Your task to perform on an android device: add a contact Image 0: 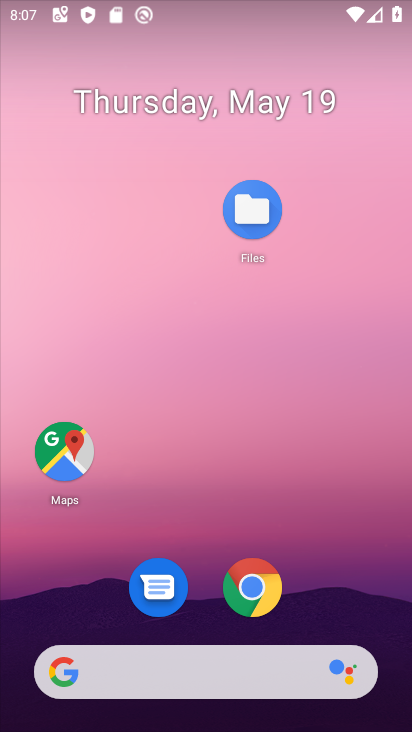
Step 0: drag from (305, 673) to (242, 152)
Your task to perform on an android device: add a contact Image 1: 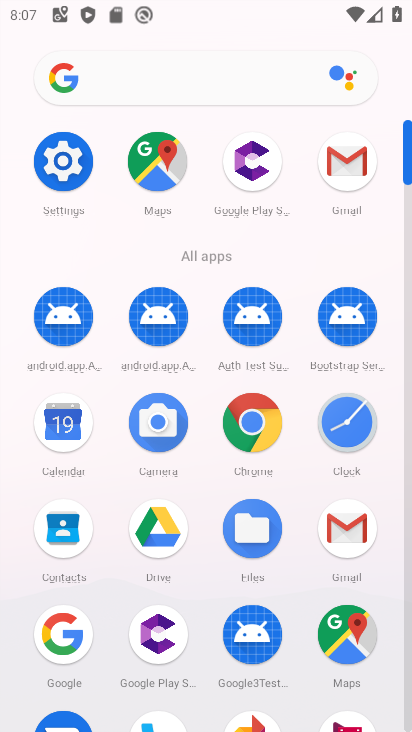
Step 1: drag from (223, 612) to (225, 159)
Your task to perform on an android device: add a contact Image 2: 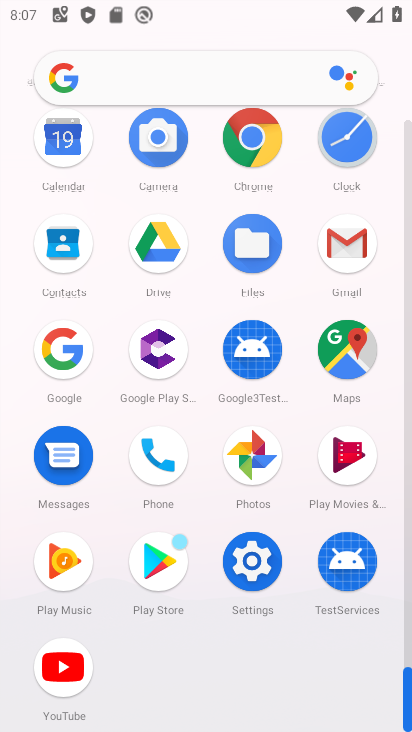
Step 2: click (59, 247)
Your task to perform on an android device: add a contact Image 3: 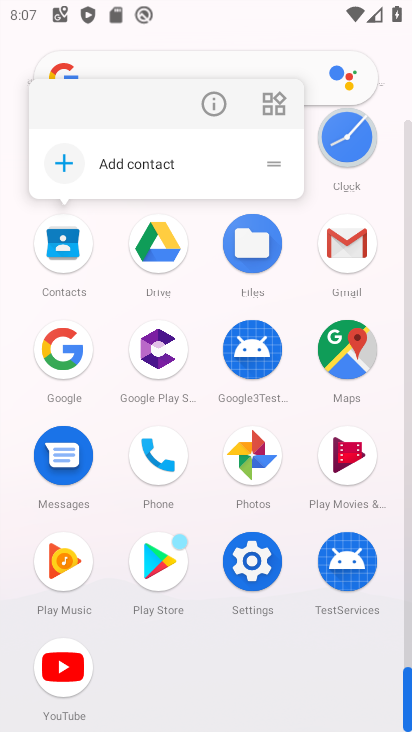
Step 3: click (66, 242)
Your task to perform on an android device: add a contact Image 4: 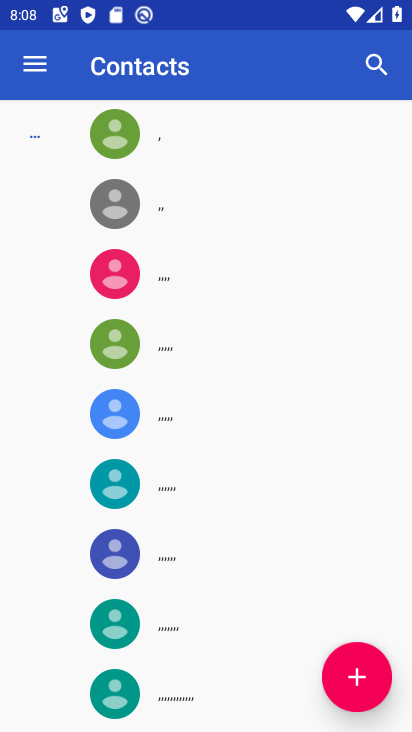
Step 4: click (364, 665)
Your task to perform on an android device: add a contact Image 5: 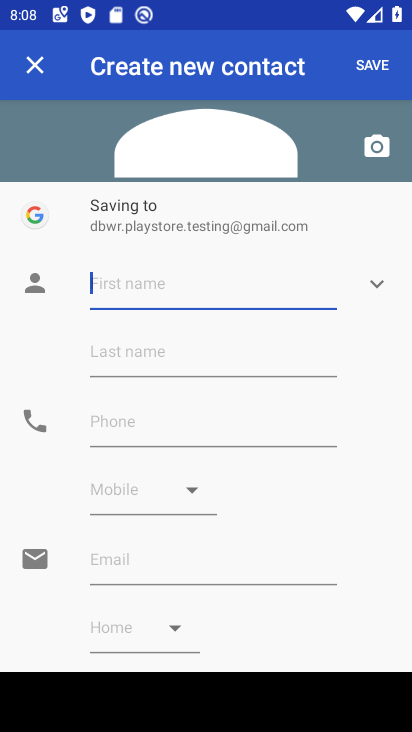
Step 5: type "fhggjhguhh"
Your task to perform on an android device: add a contact Image 6: 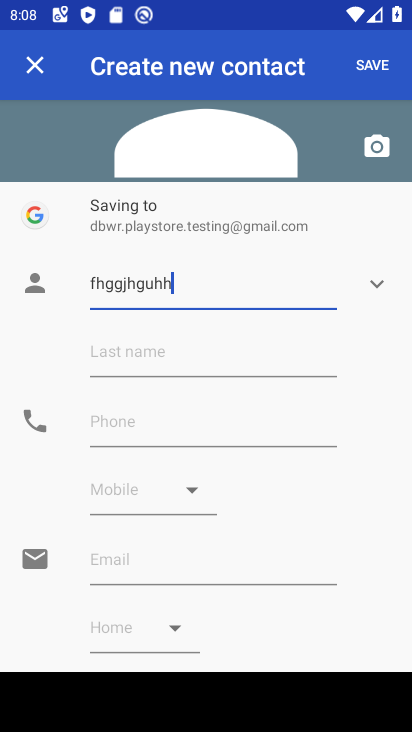
Step 6: click (106, 436)
Your task to perform on an android device: add a contact Image 7: 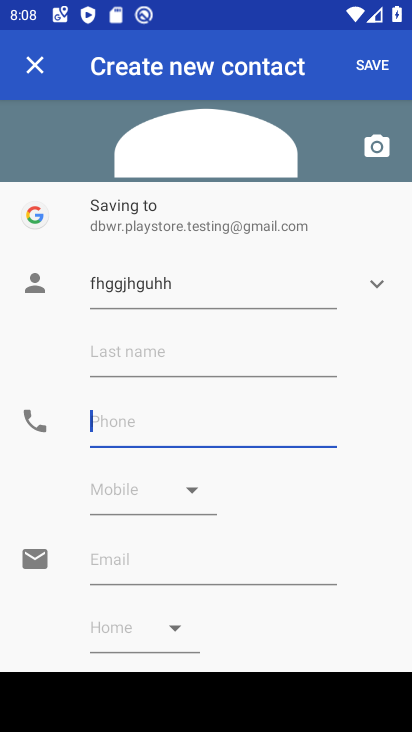
Step 7: type "65766787987988"
Your task to perform on an android device: add a contact Image 8: 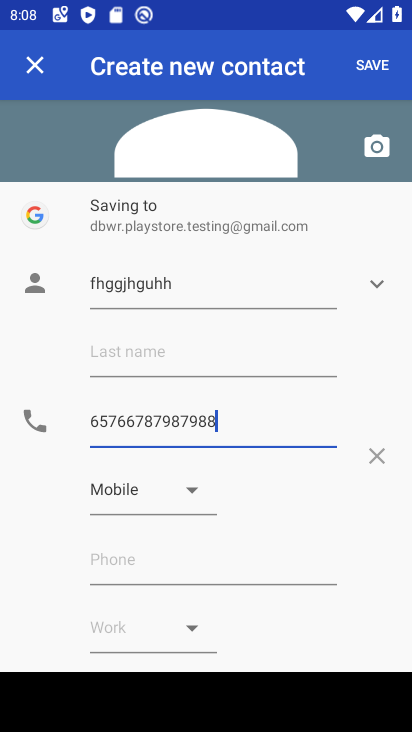
Step 8: click (367, 64)
Your task to perform on an android device: add a contact Image 9: 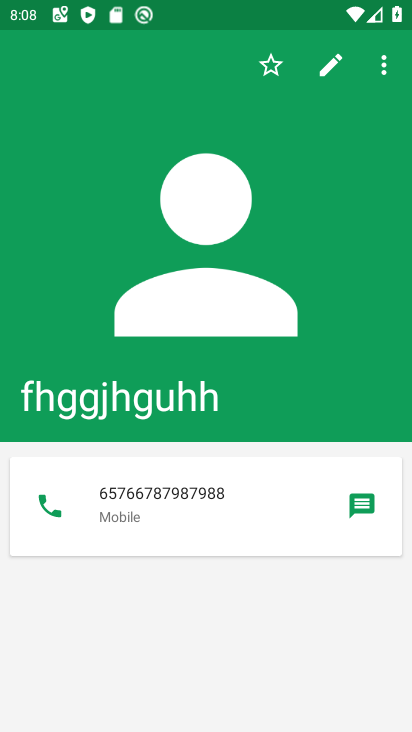
Step 9: task complete